Your task to perform on an android device: set the timer Image 0: 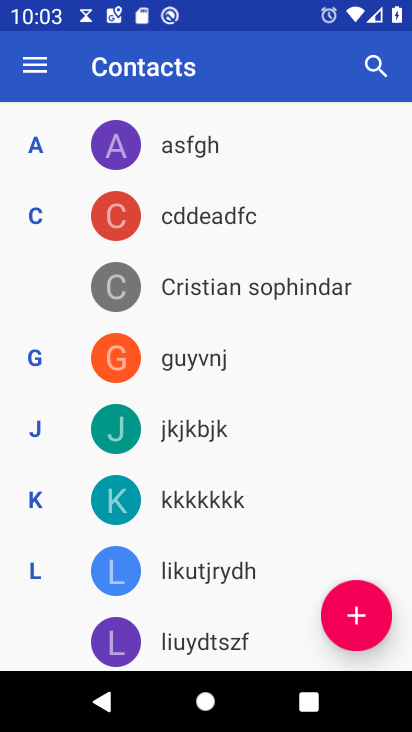
Step 0: press home button
Your task to perform on an android device: set the timer Image 1: 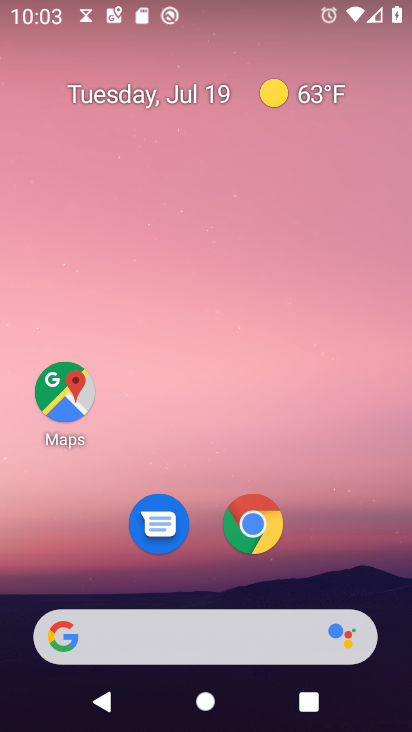
Step 1: drag from (204, 635) to (321, 169)
Your task to perform on an android device: set the timer Image 2: 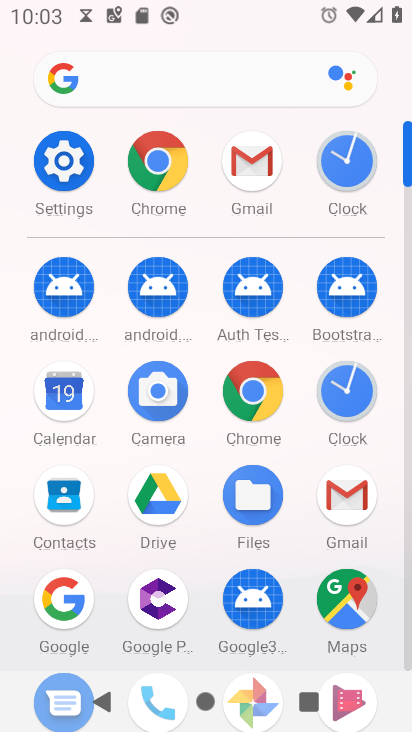
Step 2: click (340, 164)
Your task to perform on an android device: set the timer Image 3: 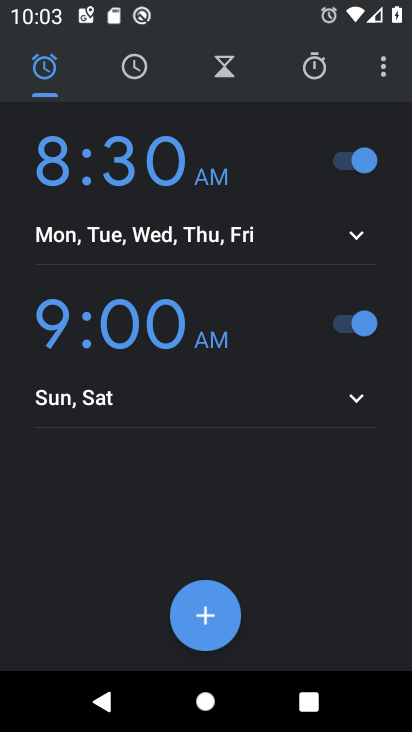
Step 3: click (224, 74)
Your task to perform on an android device: set the timer Image 4: 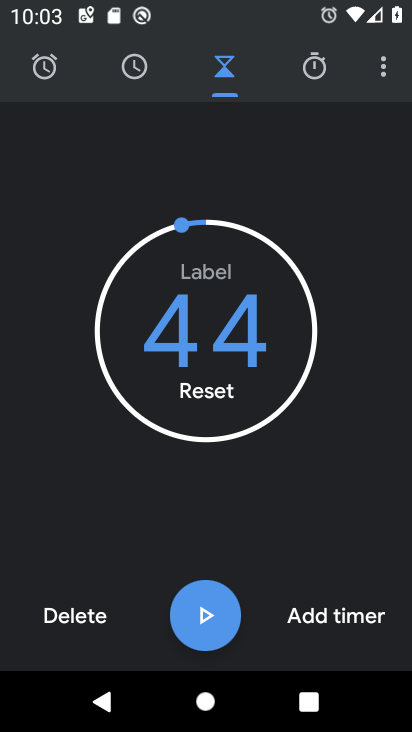
Step 4: click (78, 613)
Your task to perform on an android device: set the timer Image 5: 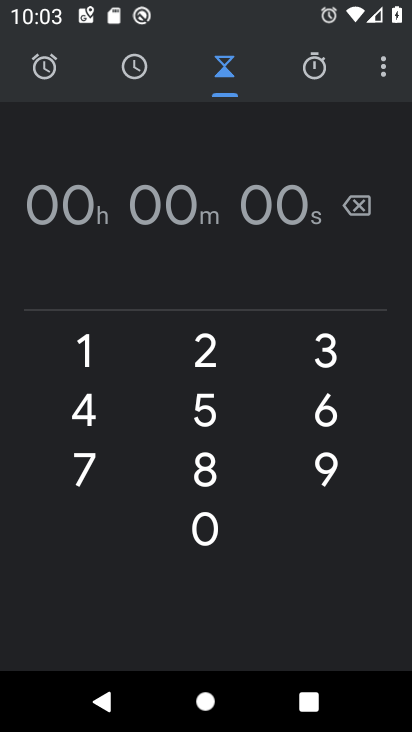
Step 5: click (206, 351)
Your task to perform on an android device: set the timer Image 6: 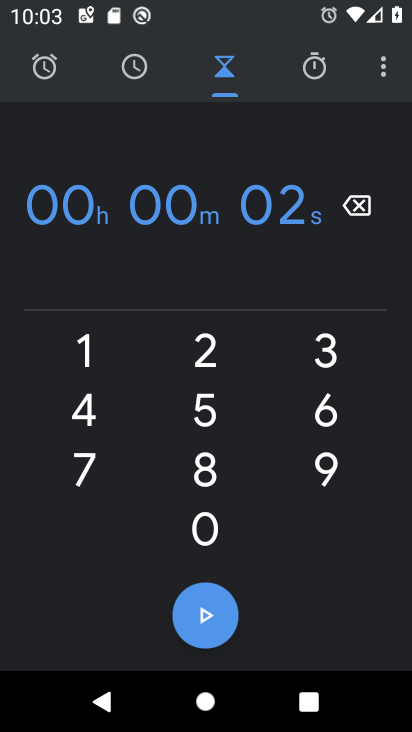
Step 6: click (325, 455)
Your task to perform on an android device: set the timer Image 7: 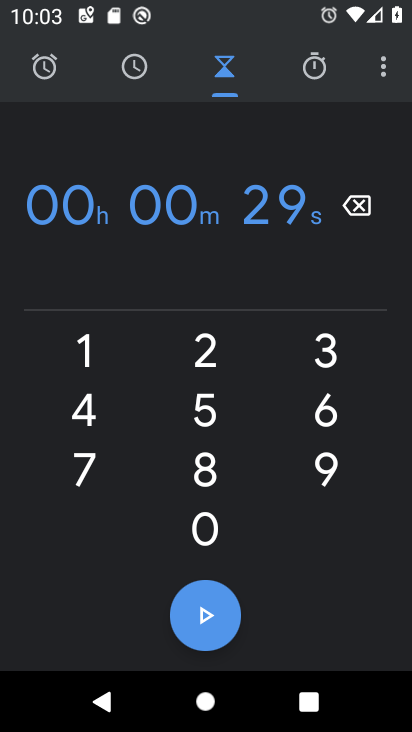
Step 7: click (200, 627)
Your task to perform on an android device: set the timer Image 8: 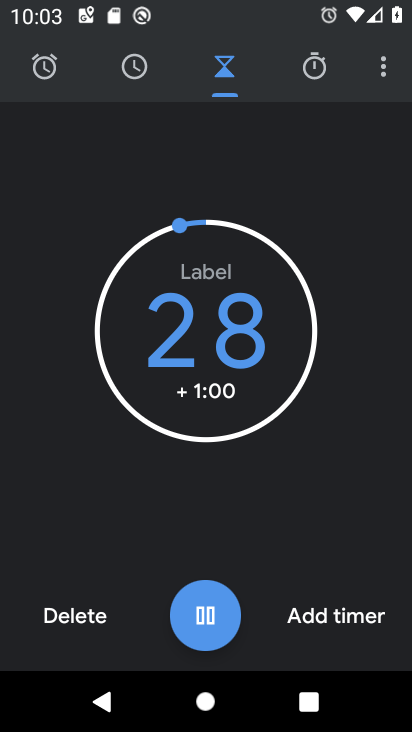
Step 8: click (202, 624)
Your task to perform on an android device: set the timer Image 9: 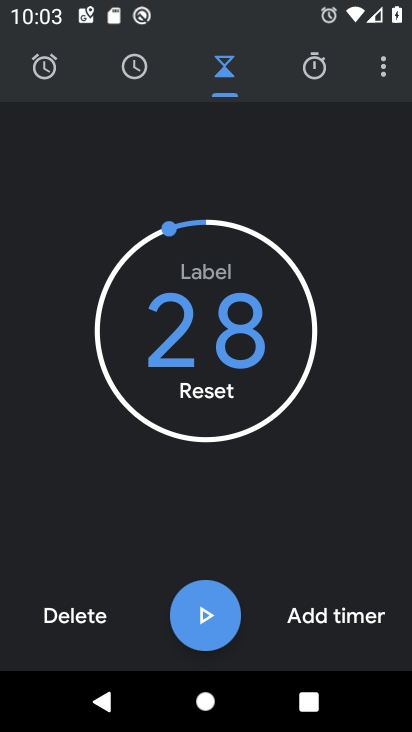
Step 9: task complete